Your task to perform on an android device: change text size in settings app Image 0: 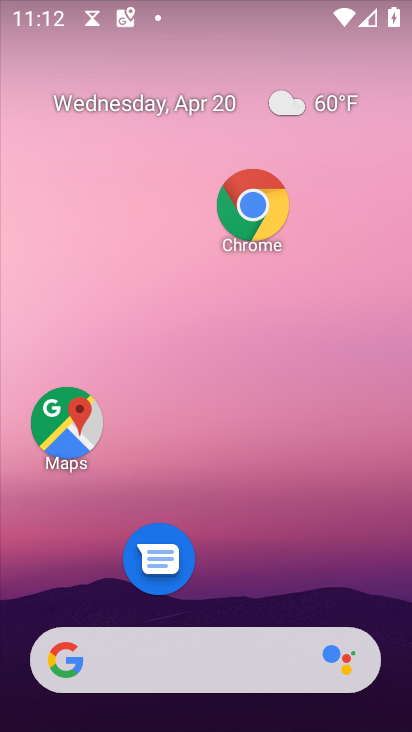
Step 0: drag from (287, 400) to (261, 0)
Your task to perform on an android device: change text size in settings app Image 1: 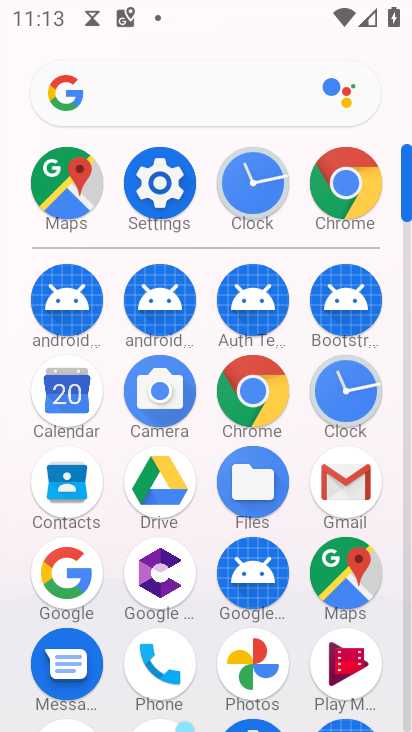
Step 1: drag from (304, 662) to (343, 197)
Your task to perform on an android device: change text size in settings app Image 2: 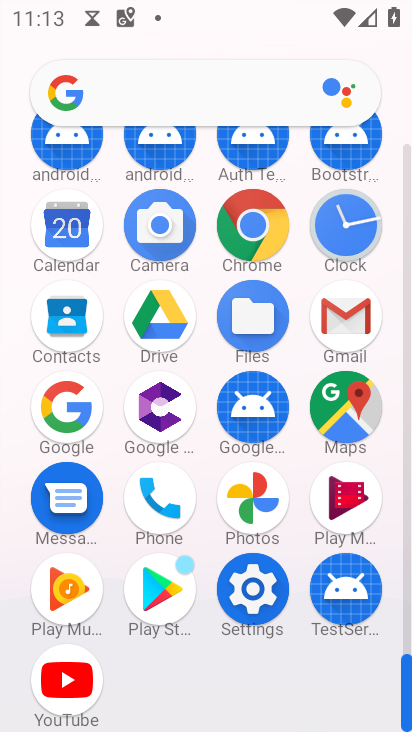
Step 2: click (261, 581)
Your task to perform on an android device: change text size in settings app Image 3: 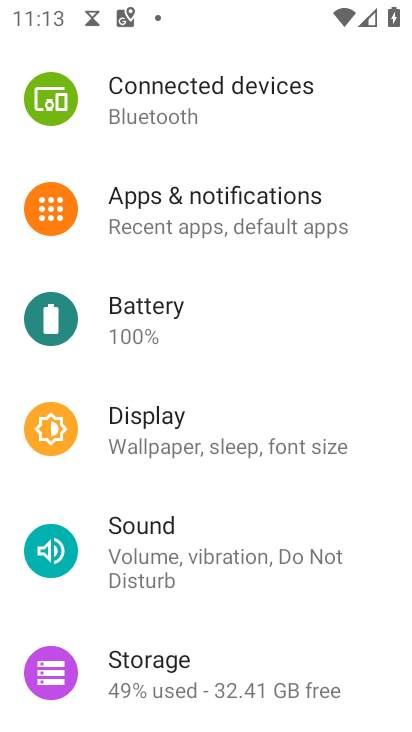
Step 3: drag from (273, 309) to (305, 29)
Your task to perform on an android device: change text size in settings app Image 4: 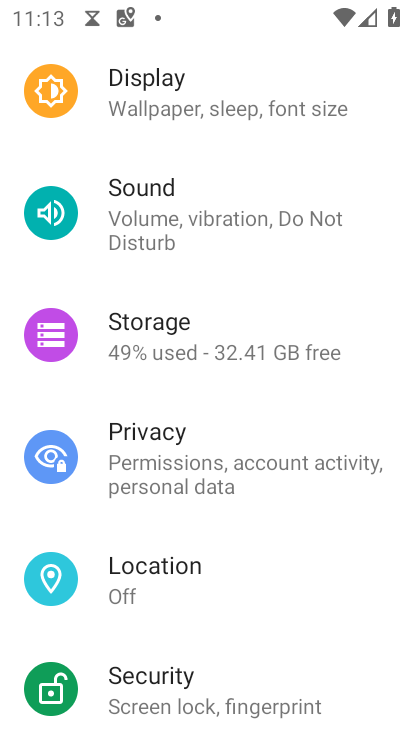
Step 4: drag from (242, 676) to (282, 91)
Your task to perform on an android device: change text size in settings app Image 5: 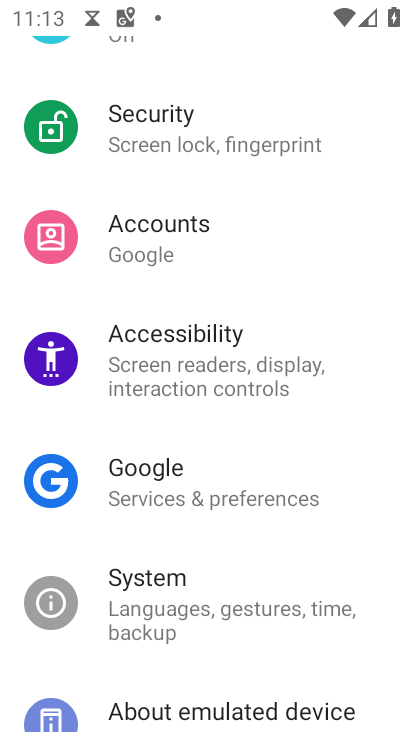
Step 5: click (225, 374)
Your task to perform on an android device: change text size in settings app Image 6: 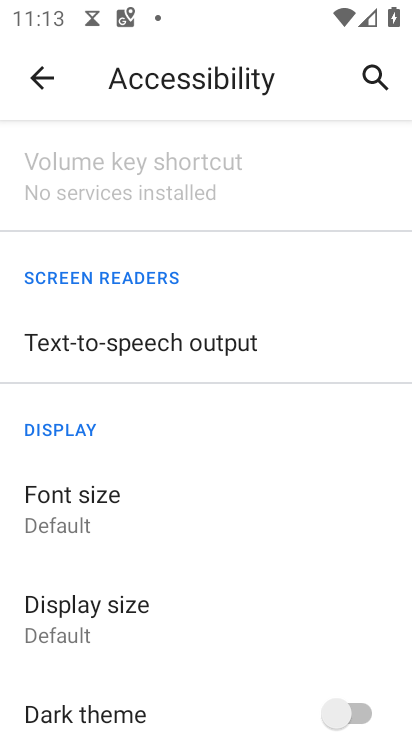
Step 6: click (191, 541)
Your task to perform on an android device: change text size in settings app Image 7: 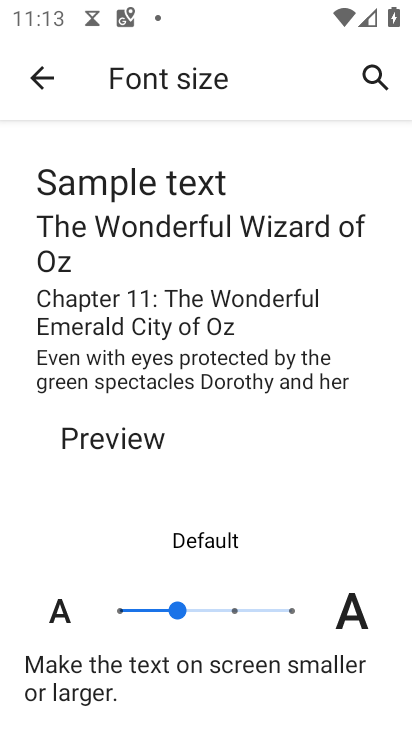
Step 7: click (135, 611)
Your task to perform on an android device: change text size in settings app Image 8: 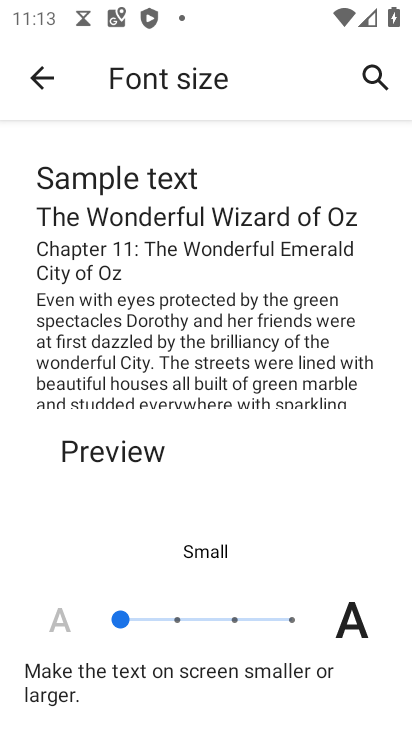
Step 8: task complete